Your task to perform on an android device: see creations saved in the google photos Image 0: 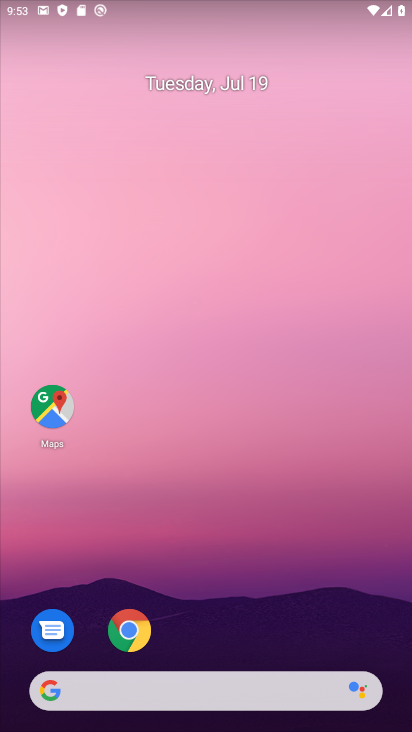
Step 0: drag from (232, 623) to (219, 1)
Your task to perform on an android device: see creations saved in the google photos Image 1: 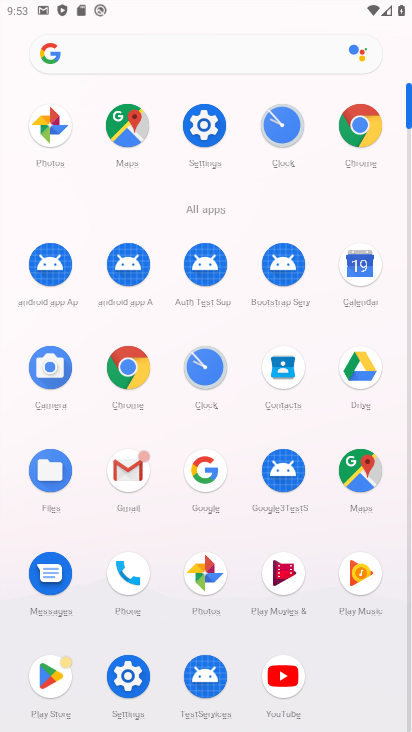
Step 1: click (57, 133)
Your task to perform on an android device: see creations saved in the google photos Image 2: 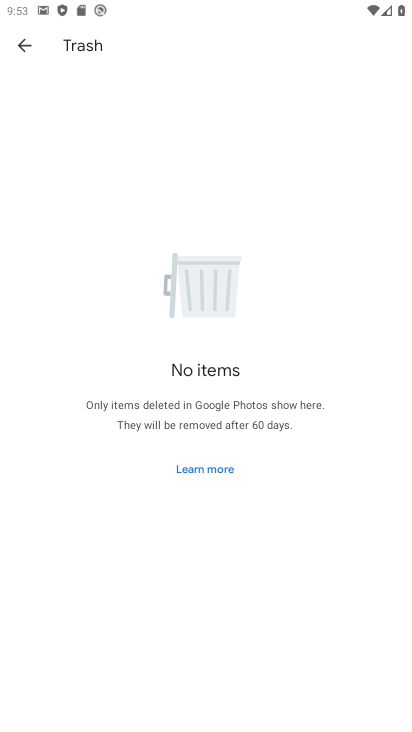
Step 2: click (22, 37)
Your task to perform on an android device: see creations saved in the google photos Image 3: 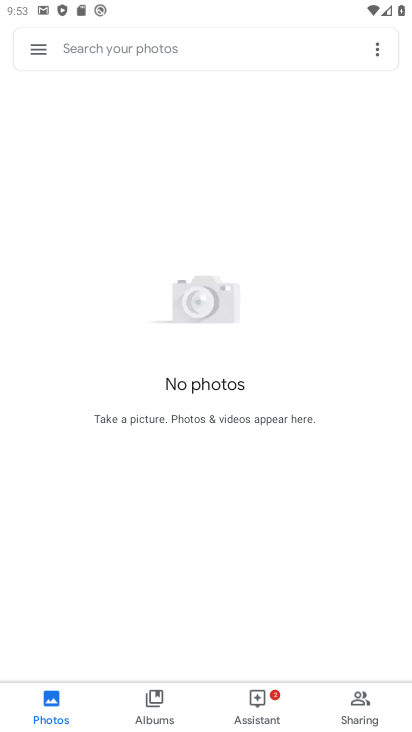
Step 3: click (88, 56)
Your task to perform on an android device: see creations saved in the google photos Image 4: 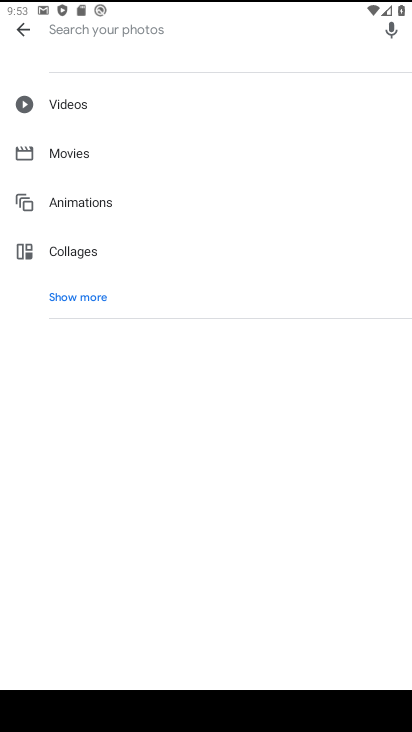
Step 4: click (92, 296)
Your task to perform on an android device: see creations saved in the google photos Image 5: 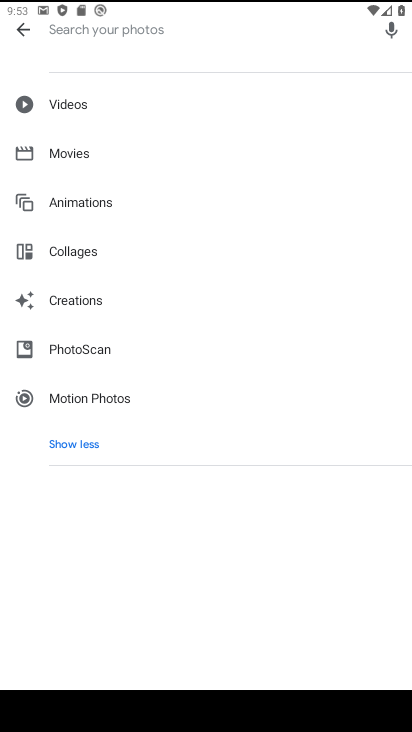
Step 5: click (100, 301)
Your task to perform on an android device: see creations saved in the google photos Image 6: 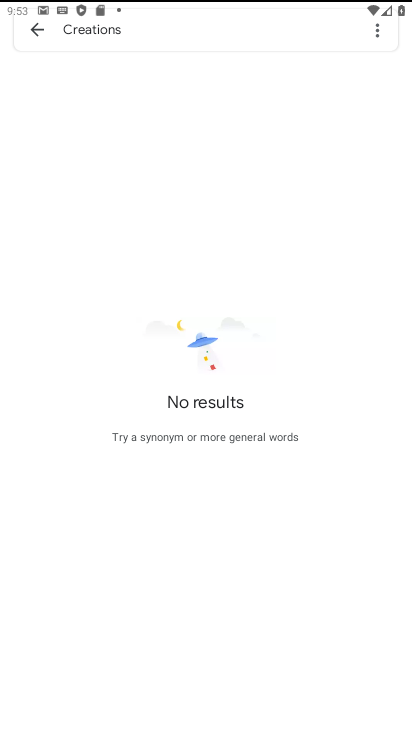
Step 6: task complete